Your task to perform on an android device: search for starred emails in the gmail app Image 0: 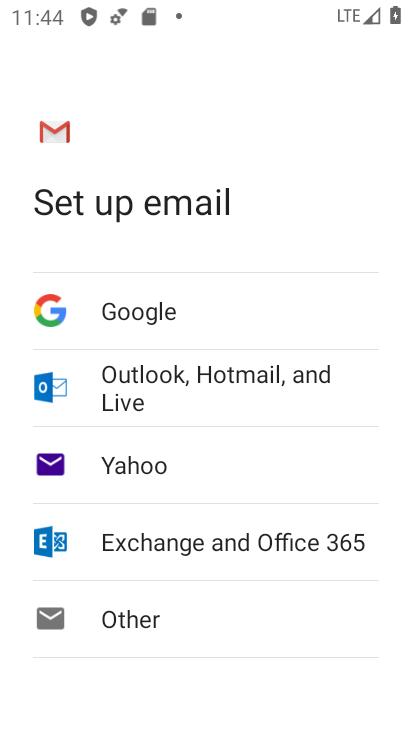
Step 0: press home button
Your task to perform on an android device: search for starred emails in the gmail app Image 1: 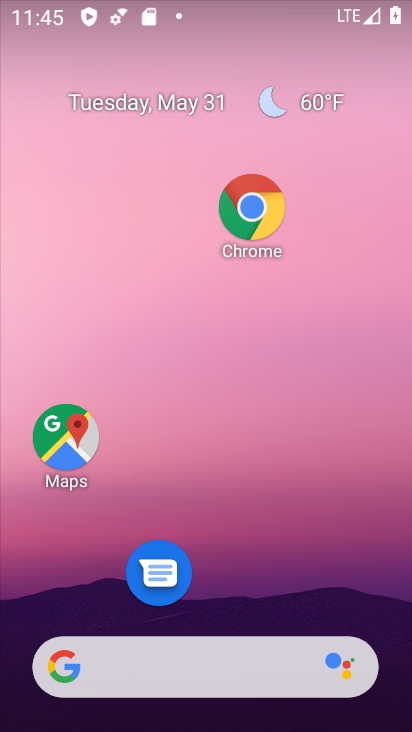
Step 1: drag from (203, 611) to (204, 153)
Your task to perform on an android device: search for starred emails in the gmail app Image 2: 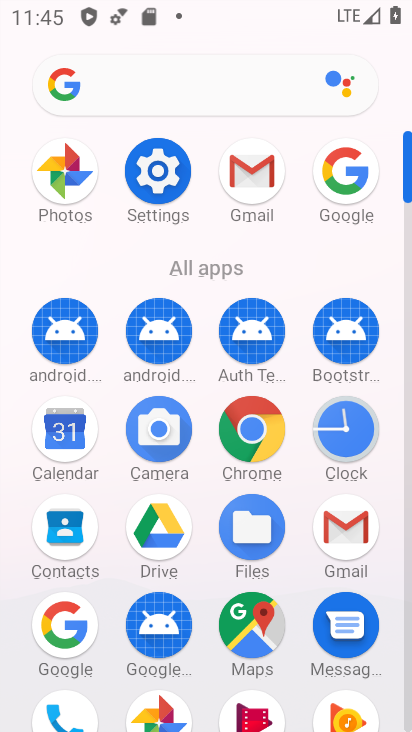
Step 2: click (231, 169)
Your task to perform on an android device: search for starred emails in the gmail app Image 3: 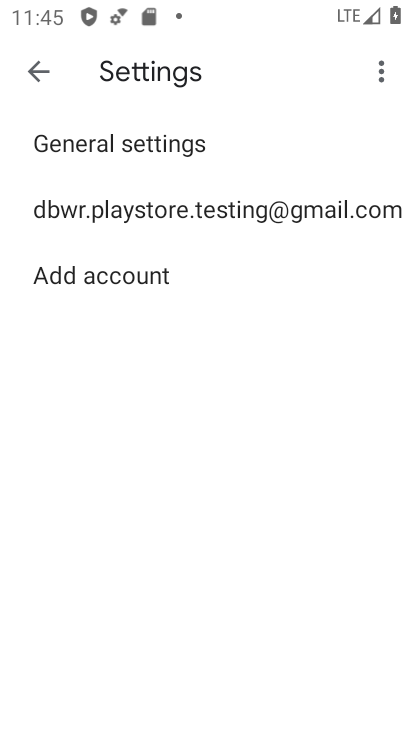
Step 3: click (35, 51)
Your task to perform on an android device: search for starred emails in the gmail app Image 4: 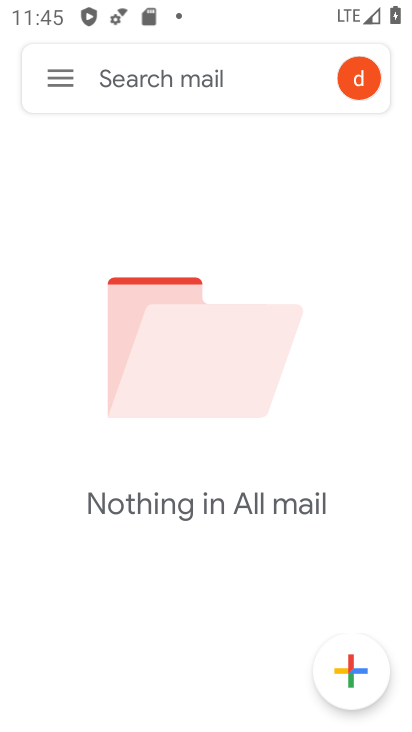
Step 4: click (68, 78)
Your task to perform on an android device: search for starred emails in the gmail app Image 5: 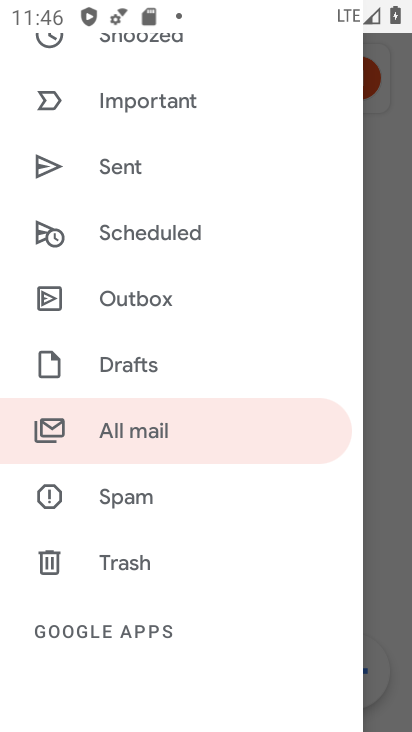
Step 5: drag from (158, 174) to (187, 426)
Your task to perform on an android device: search for starred emails in the gmail app Image 6: 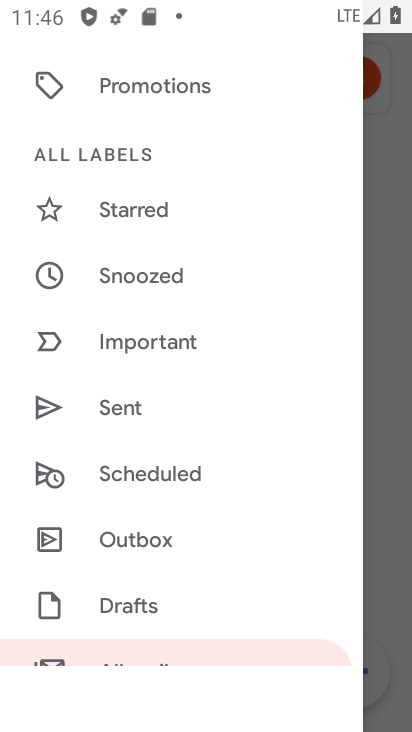
Step 6: drag from (200, 199) to (206, 446)
Your task to perform on an android device: search for starred emails in the gmail app Image 7: 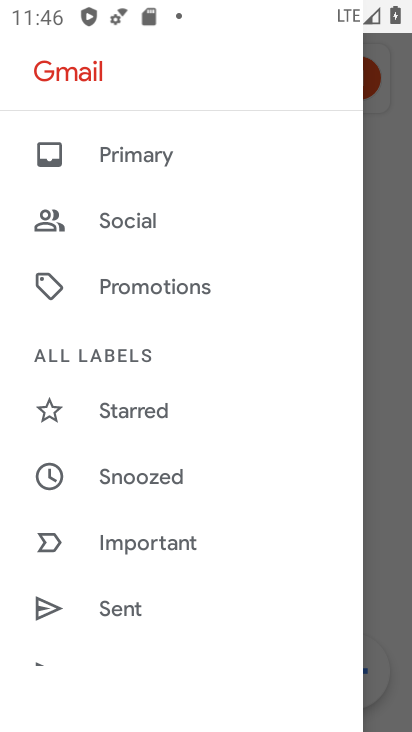
Step 7: click (180, 393)
Your task to perform on an android device: search for starred emails in the gmail app Image 8: 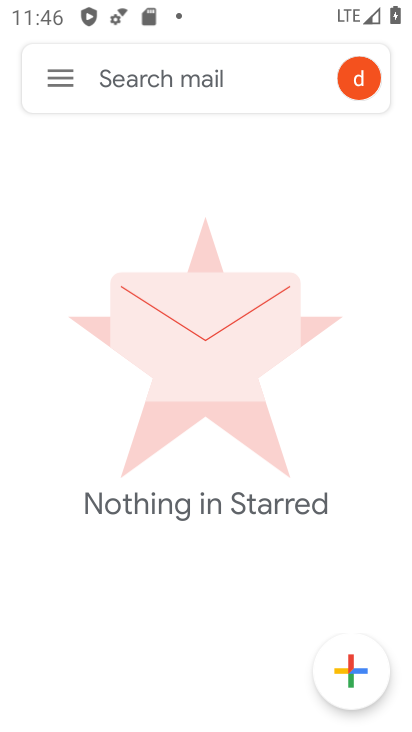
Step 8: task complete